Your task to perform on an android device: Search for "logitech g pro" on newegg, select the first entry, and add it to the cart. Image 0: 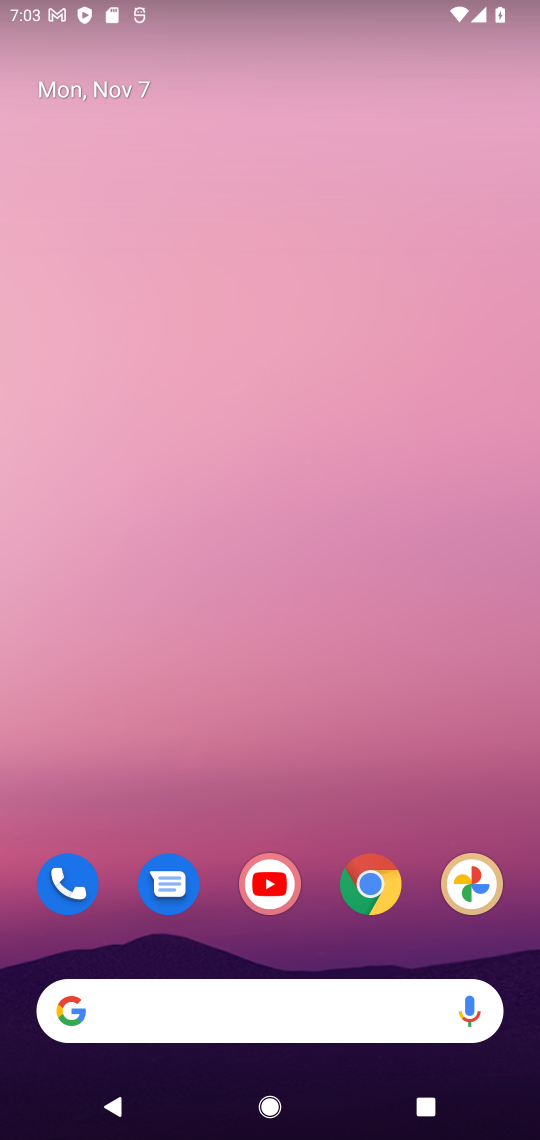
Step 0: click (380, 889)
Your task to perform on an android device: Search for "logitech g pro" on newegg, select the first entry, and add it to the cart. Image 1: 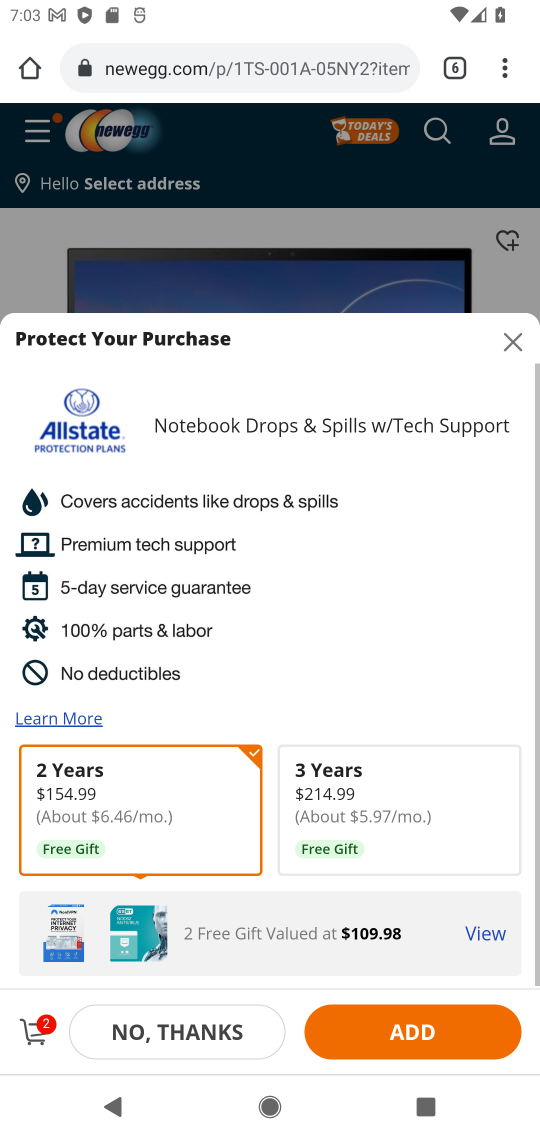
Step 1: click (505, 334)
Your task to perform on an android device: Search for "logitech g pro" on newegg, select the first entry, and add it to the cart. Image 2: 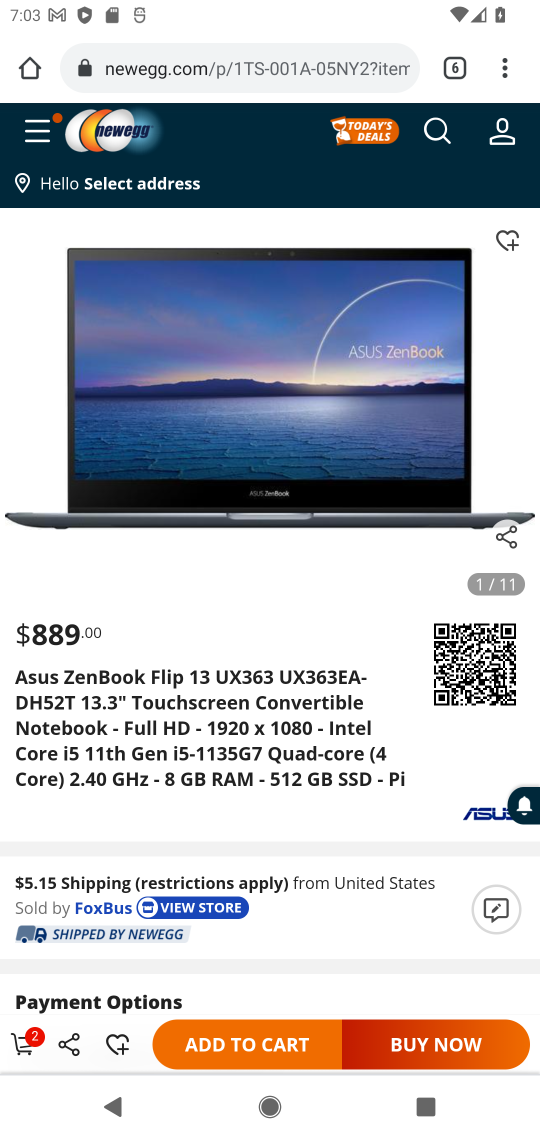
Step 2: click (435, 123)
Your task to perform on an android device: Search for "logitech g pro" on newegg, select the first entry, and add it to the cart. Image 3: 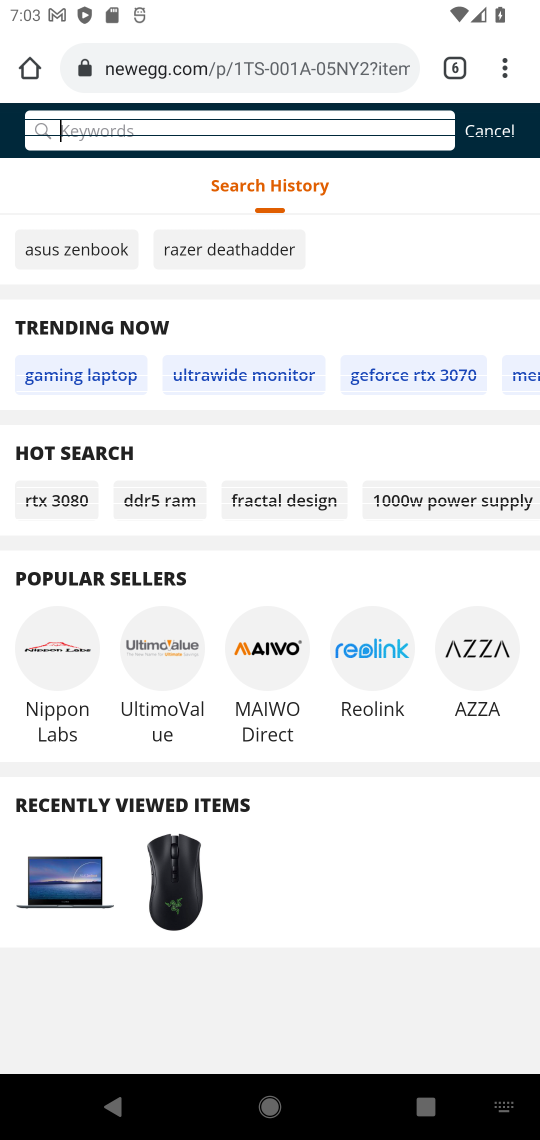
Step 3: type "logitech g pro"
Your task to perform on an android device: Search for "logitech g pro" on newegg, select the first entry, and add it to the cart. Image 4: 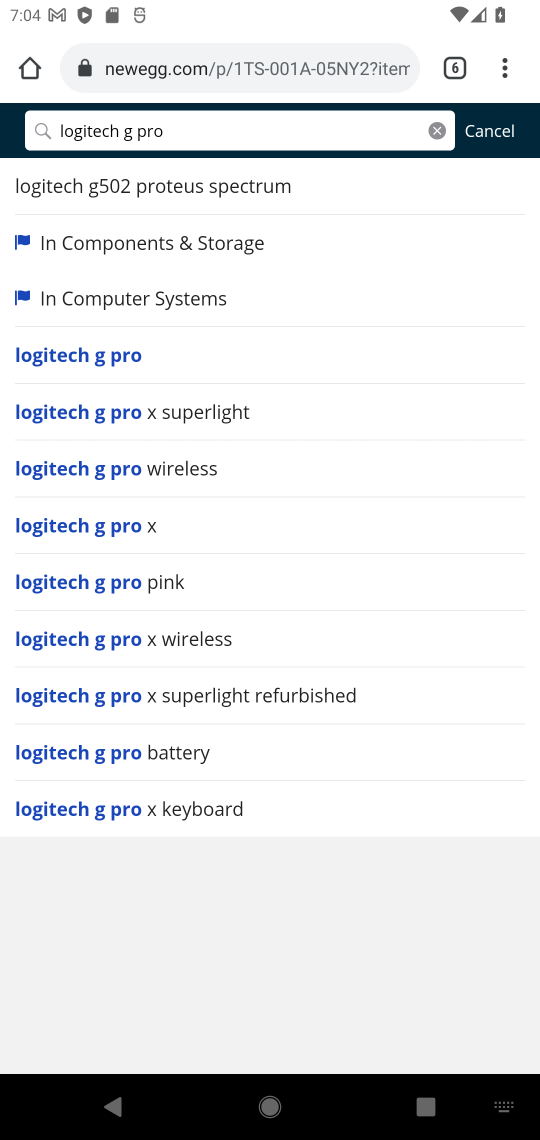
Step 4: click (85, 357)
Your task to perform on an android device: Search for "logitech g pro" on newegg, select the first entry, and add it to the cart. Image 5: 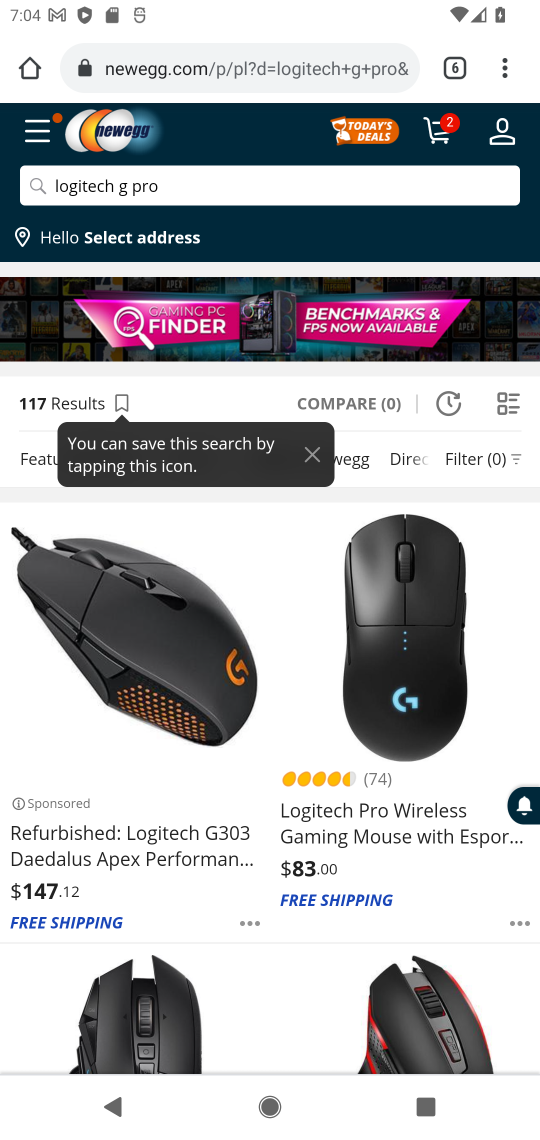
Step 5: click (320, 820)
Your task to perform on an android device: Search for "logitech g pro" on newegg, select the first entry, and add it to the cart. Image 6: 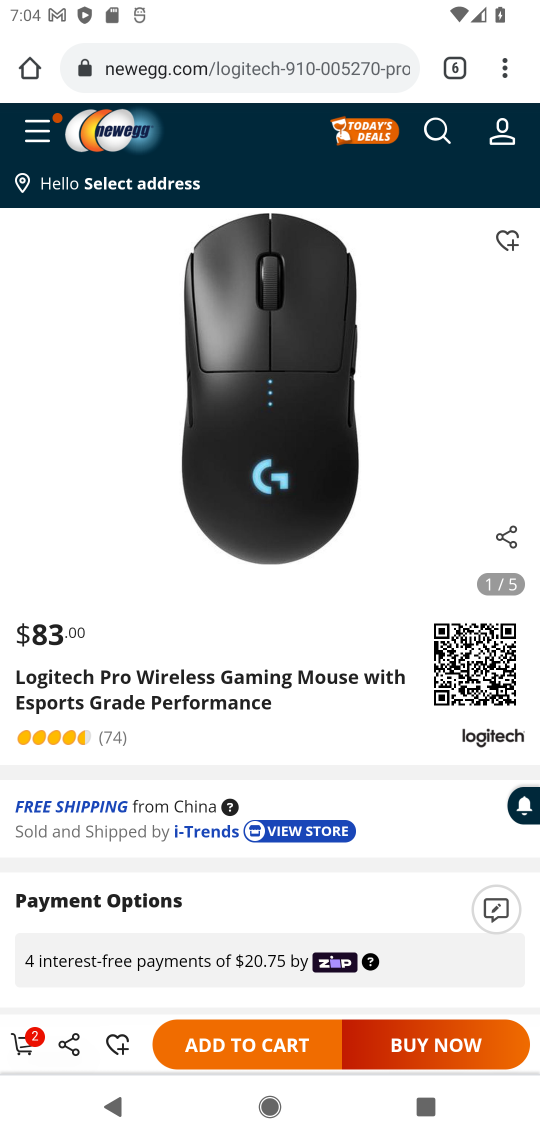
Step 6: click (250, 1048)
Your task to perform on an android device: Search for "logitech g pro" on newegg, select the first entry, and add it to the cart. Image 7: 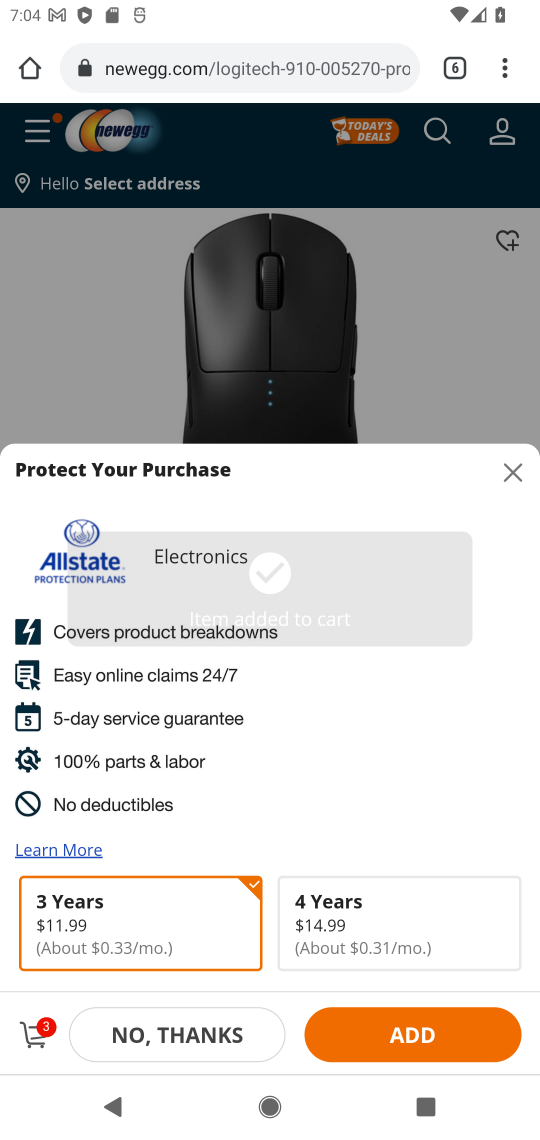
Step 7: task complete